Your task to perform on an android device: open app "PlayWell" (install if not already installed) and enter user name: "metric@gmail.com" and password: "bumblebee" Image 0: 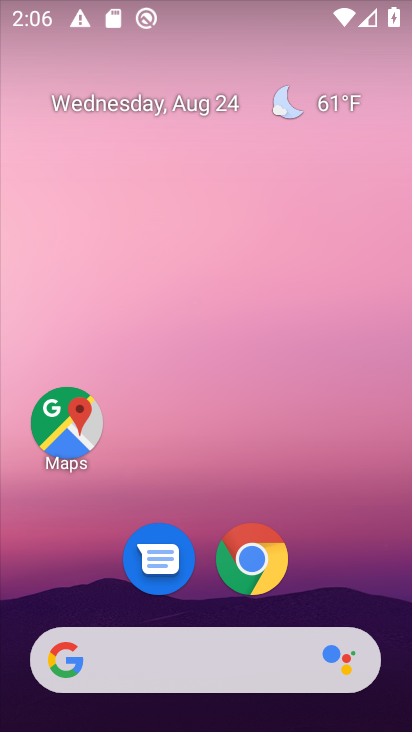
Step 0: drag from (230, 208) to (230, 16)
Your task to perform on an android device: open app "PlayWell" (install if not already installed) and enter user name: "metric@gmail.com" and password: "bumblebee" Image 1: 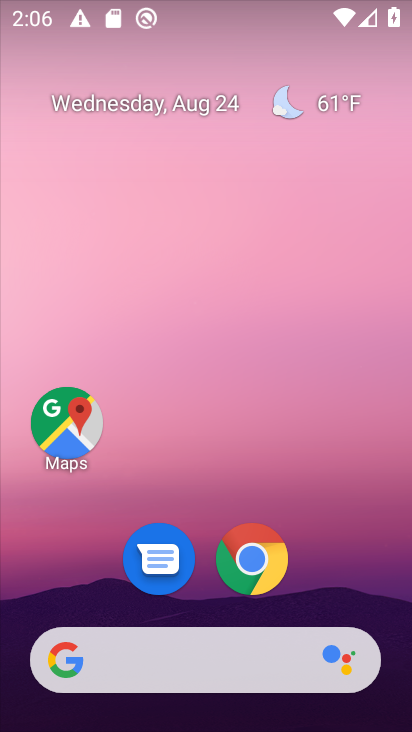
Step 1: drag from (189, 628) to (245, 131)
Your task to perform on an android device: open app "PlayWell" (install if not already installed) and enter user name: "metric@gmail.com" and password: "bumblebee" Image 2: 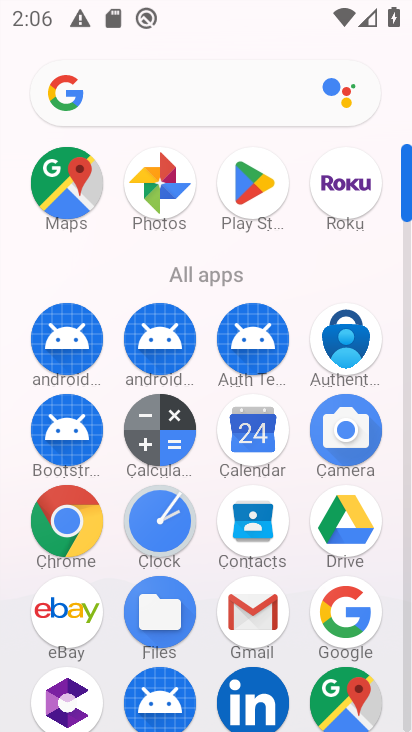
Step 2: click (251, 179)
Your task to perform on an android device: open app "PlayWell" (install if not already installed) and enter user name: "metric@gmail.com" and password: "bumblebee" Image 3: 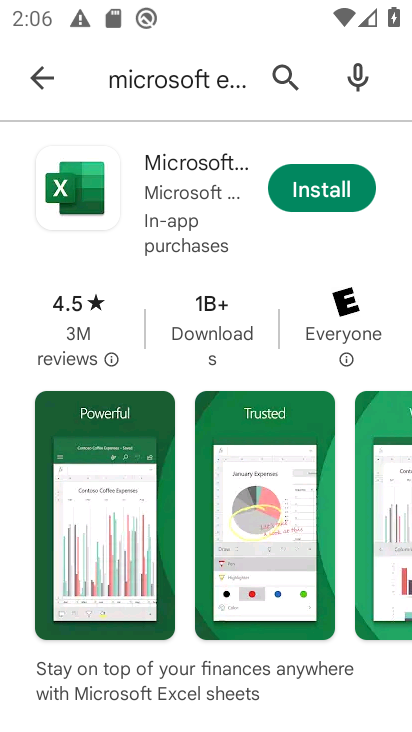
Step 3: click (284, 73)
Your task to perform on an android device: open app "PlayWell" (install if not already installed) and enter user name: "metric@gmail.com" and password: "bumblebee" Image 4: 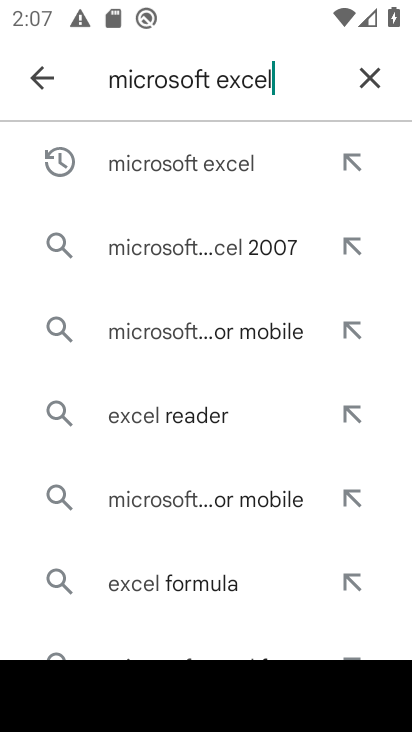
Step 4: click (361, 80)
Your task to perform on an android device: open app "PlayWell" (install if not already installed) and enter user name: "metric@gmail.com" and password: "bumblebee" Image 5: 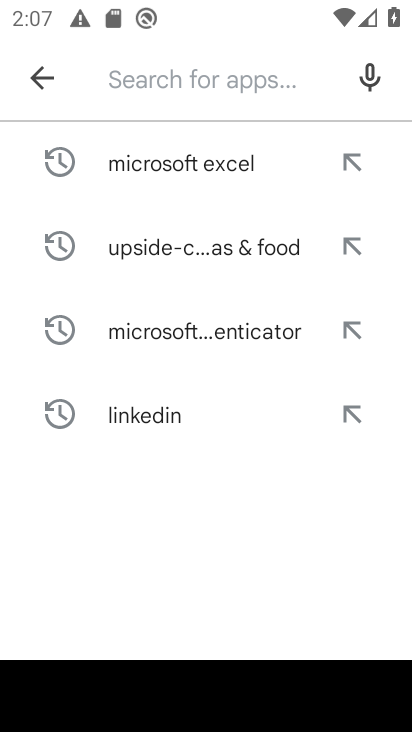
Step 5: type "PlayWell"
Your task to perform on an android device: open app "PlayWell" (install if not already installed) and enter user name: "metric@gmail.com" and password: "bumblebee" Image 6: 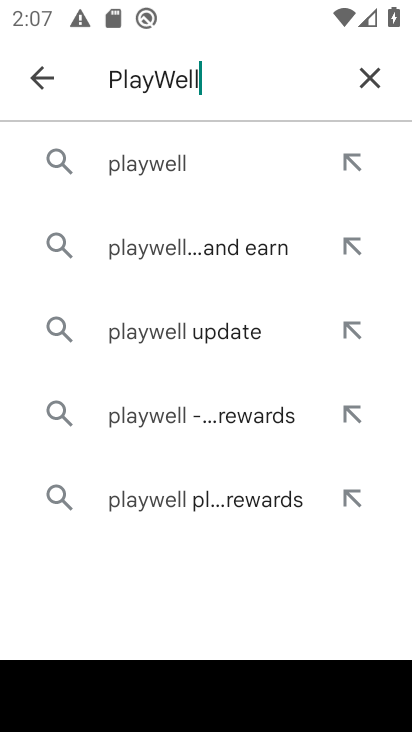
Step 6: click (135, 166)
Your task to perform on an android device: open app "PlayWell" (install if not already installed) and enter user name: "metric@gmail.com" and password: "bumblebee" Image 7: 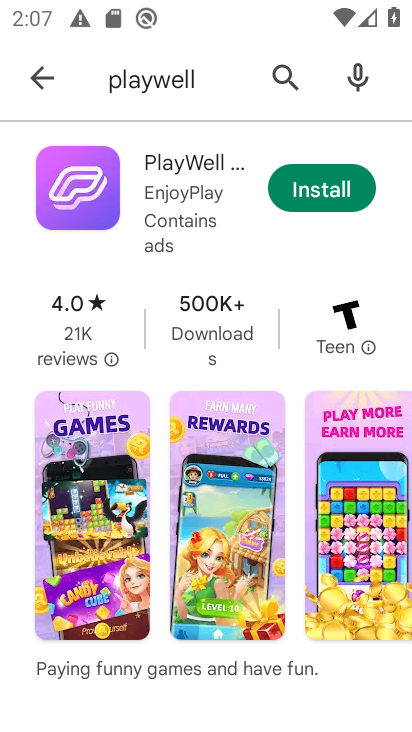
Step 7: click (322, 195)
Your task to perform on an android device: open app "PlayWell" (install if not already installed) and enter user name: "metric@gmail.com" and password: "bumblebee" Image 8: 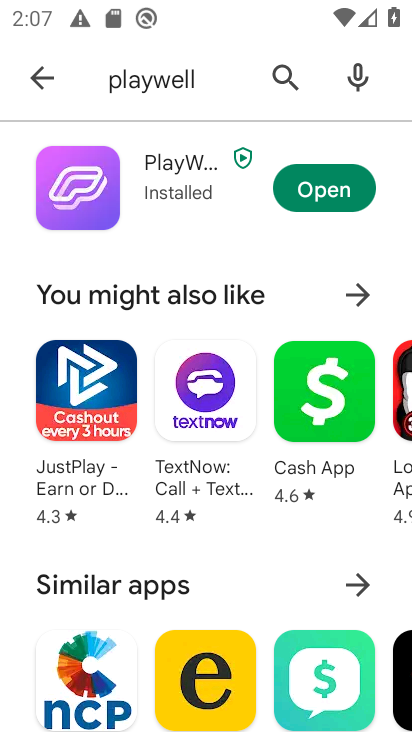
Step 8: click (307, 186)
Your task to perform on an android device: open app "PlayWell" (install if not already installed) and enter user name: "metric@gmail.com" and password: "bumblebee" Image 9: 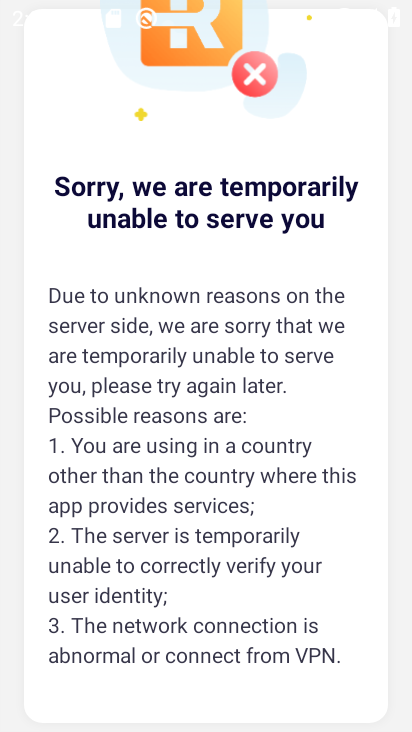
Step 9: task complete